Your task to perform on an android device: Open Google Chrome and click the shortcut for Amazon.com Image 0: 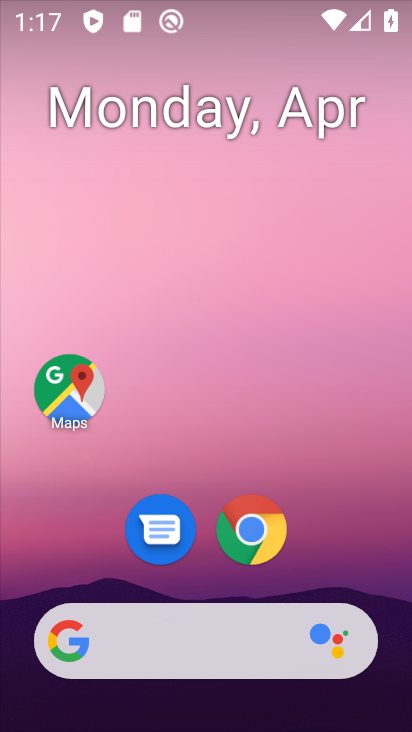
Step 0: drag from (312, 273) to (312, 145)
Your task to perform on an android device: Open Google Chrome and click the shortcut for Amazon.com Image 1: 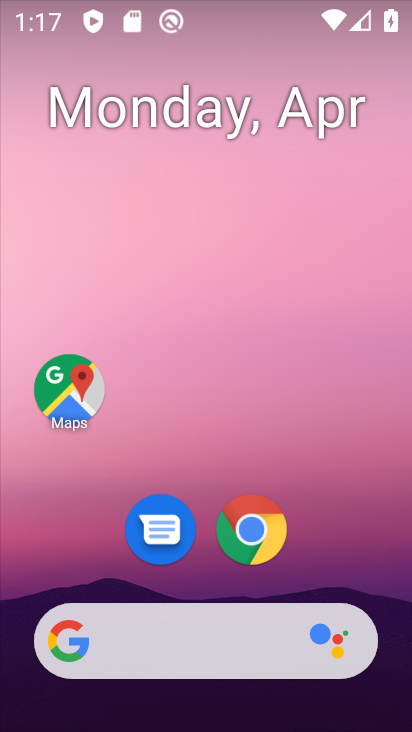
Step 1: drag from (325, 522) to (331, 156)
Your task to perform on an android device: Open Google Chrome and click the shortcut for Amazon.com Image 2: 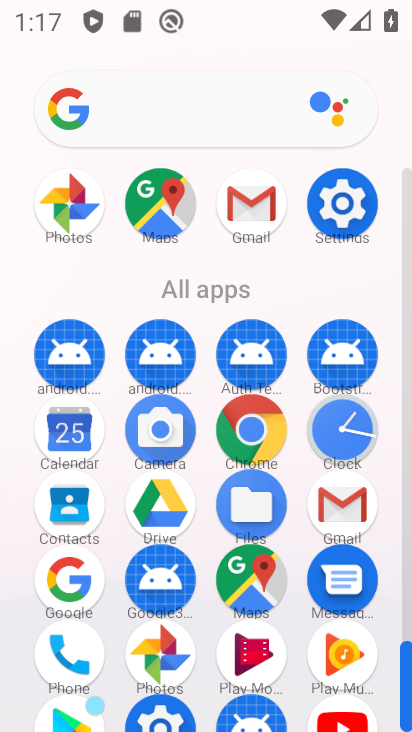
Step 2: click (258, 430)
Your task to perform on an android device: Open Google Chrome and click the shortcut for Amazon.com Image 3: 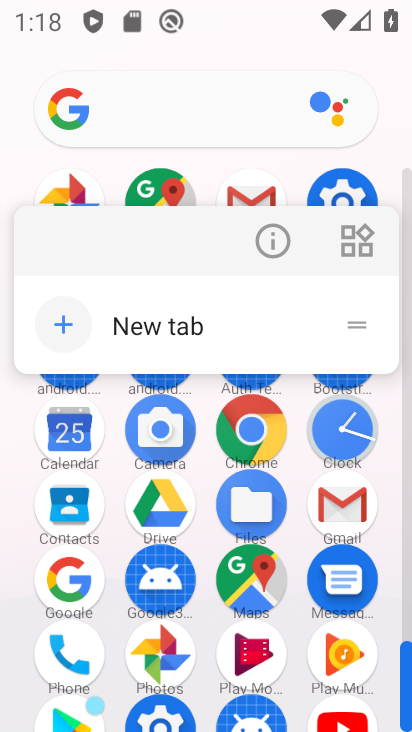
Step 3: click (246, 404)
Your task to perform on an android device: Open Google Chrome and click the shortcut for Amazon.com Image 4: 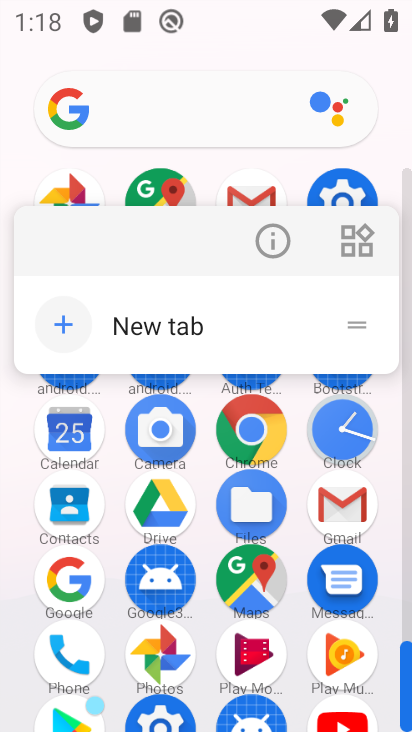
Step 4: click (246, 404)
Your task to perform on an android device: Open Google Chrome and click the shortcut for Amazon.com Image 5: 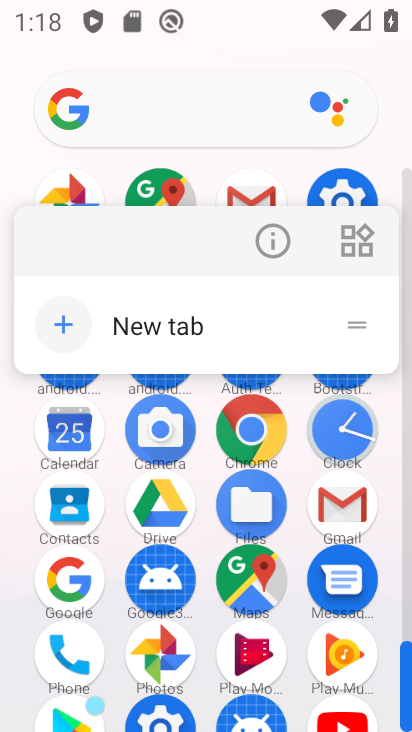
Step 5: click (248, 418)
Your task to perform on an android device: Open Google Chrome and click the shortcut for Amazon.com Image 6: 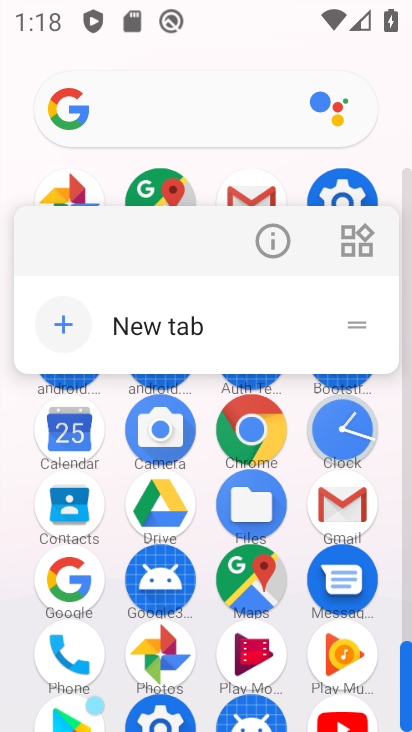
Step 6: click (248, 418)
Your task to perform on an android device: Open Google Chrome and click the shortcut for Amazon.com Image 7: 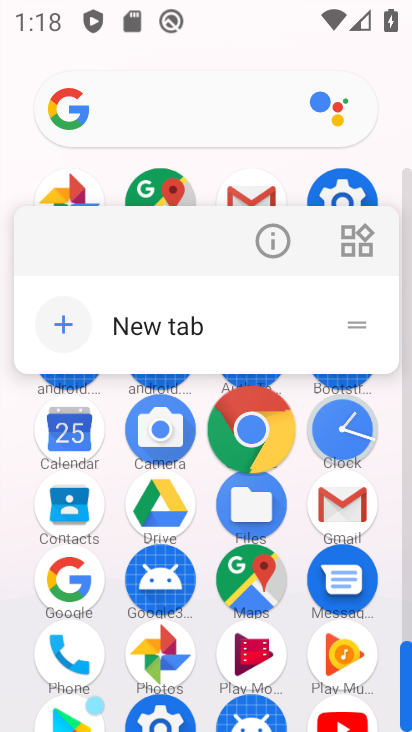
Step 7: click (248, 418)
Your task to perform on an android device: Open Google Chrome and click the shortcut for Amazon.com Image 8: 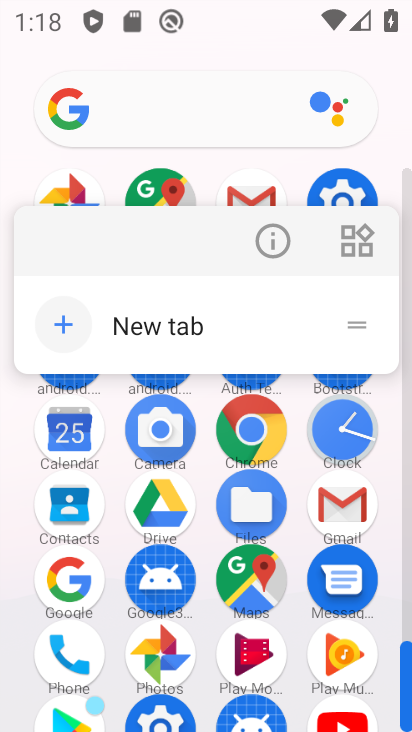
Step 8: click (176, 309)
Your task to perform on an android device: Open Google Chrome and click the shortcut for Amazon.com Image 9: 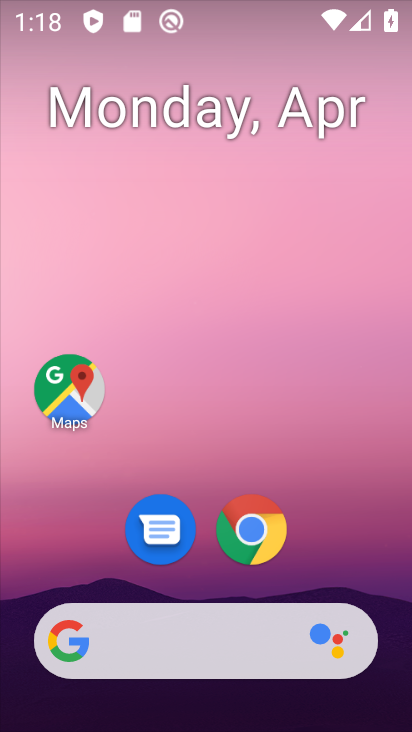
Step 9: click (242, 547)
Your task to perform on an android device: Open Google Chrome and click the shortcut for Amazon.com Image 10: 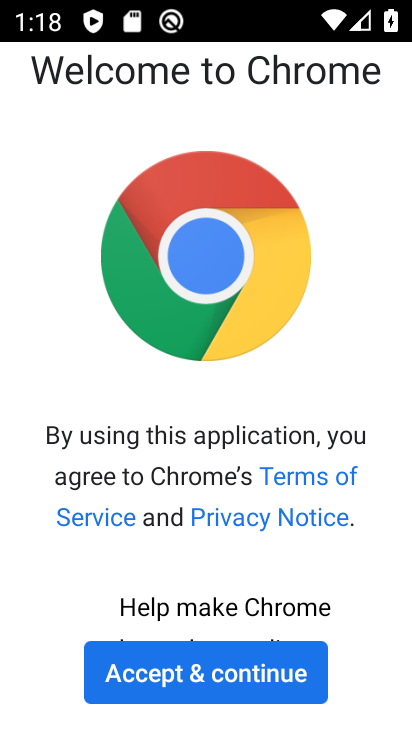
Step 10: click (249, 671)
Your task to perform on an android device: Open Google Chrome and click the shortcut for Amazon.com Image 11: 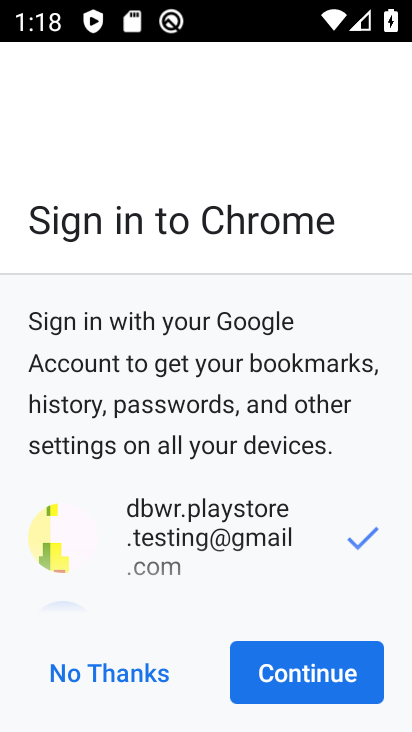
Step 11: click (250, 667)
Your task to perform on an android device: Open Google Chrome and click the shortcut for Amazon.com Image 12: 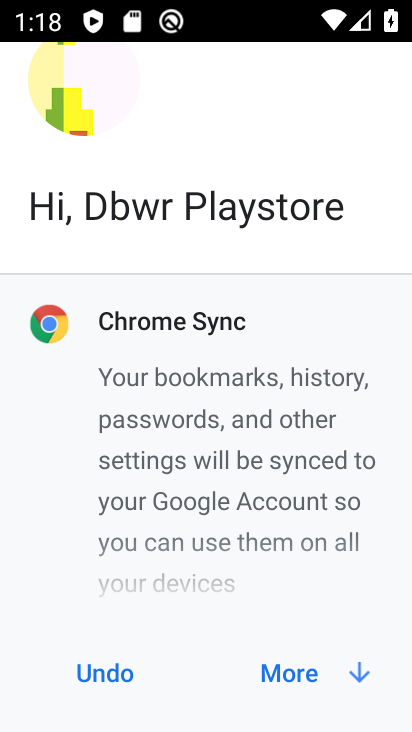
Step 12: click (297, 672)
Your task to perform on an android device: Open Google Chrome and click the shortcut for Amazon.com Image 13: 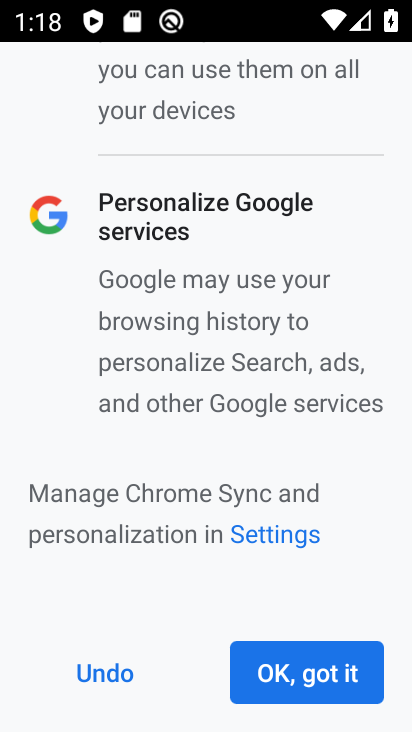
Step 13: click (286, 670)
Your task to perform on an android device: Open Google Chrome and click the shortcut for Amazon.com Image 14: 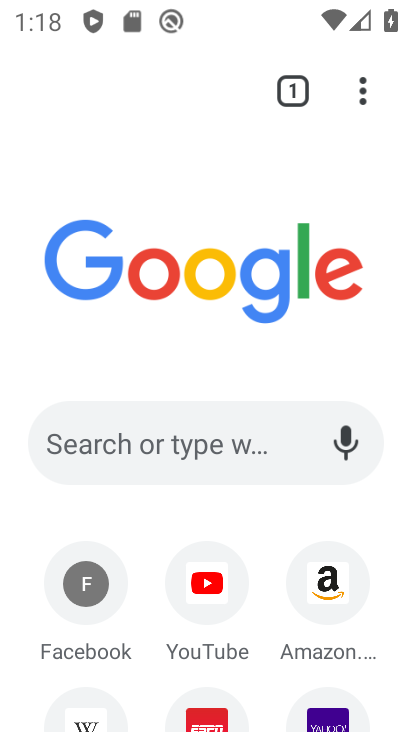
Step 14: click (326, 592)
Your task to perform on an android device: Open Google Chrome and click the shortcut for Amazon.com Image 15: 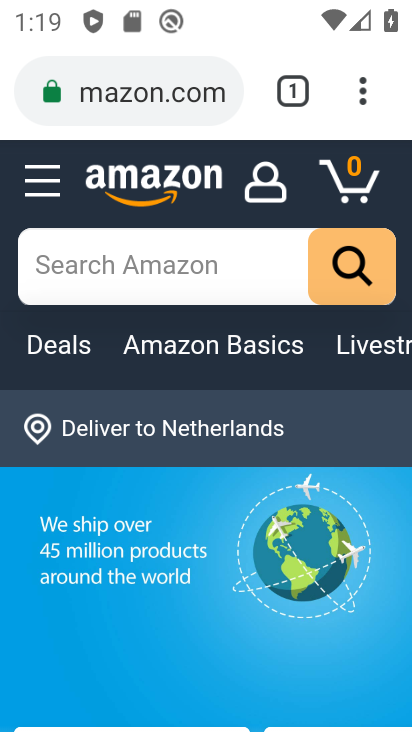
Step 15: task complete